Your task to perform on an android device: set the stopwatch Image 0: 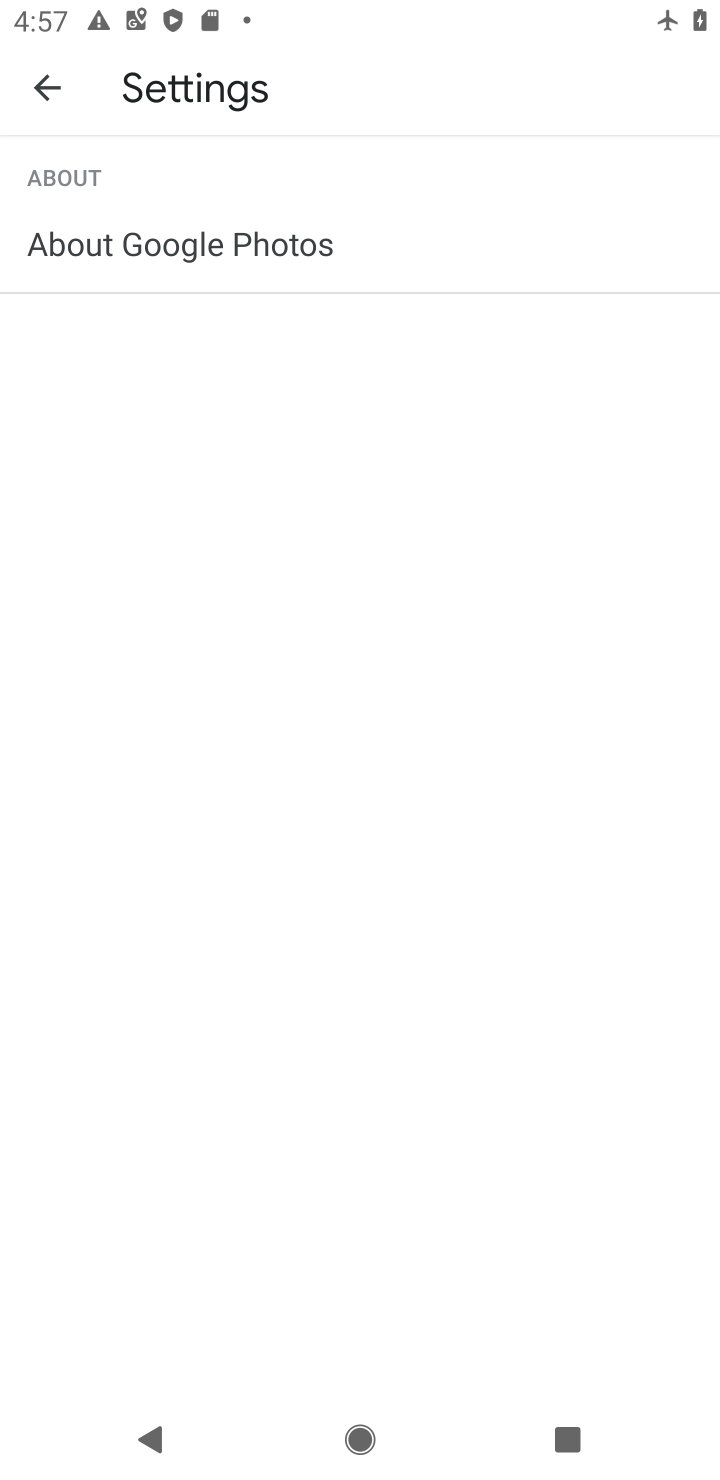
Step 0: press home button
Your task to perform on an android device: set the stopwatch Image 1: 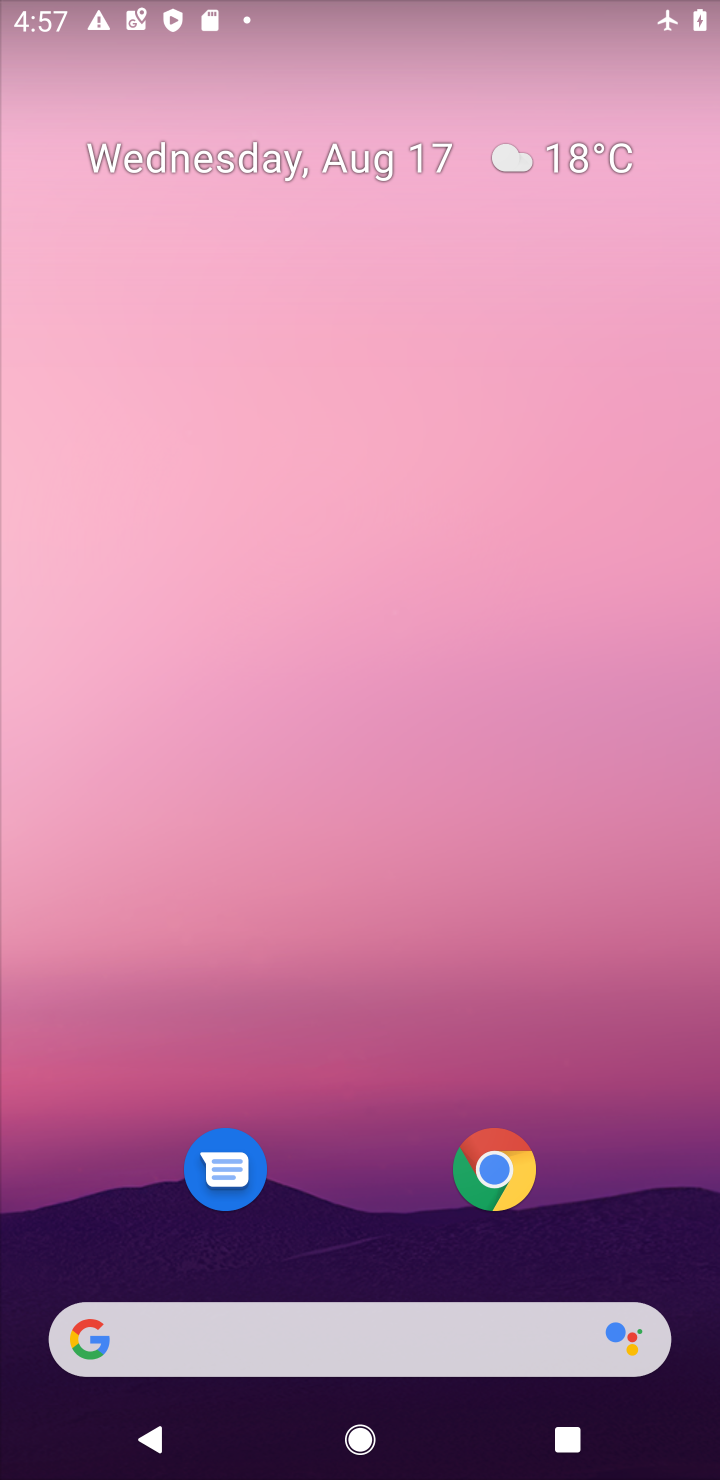
Step 1: drag from (454, 672) to (631, 5)
Your task to perform on an android device: set the stopwatch Image 2: 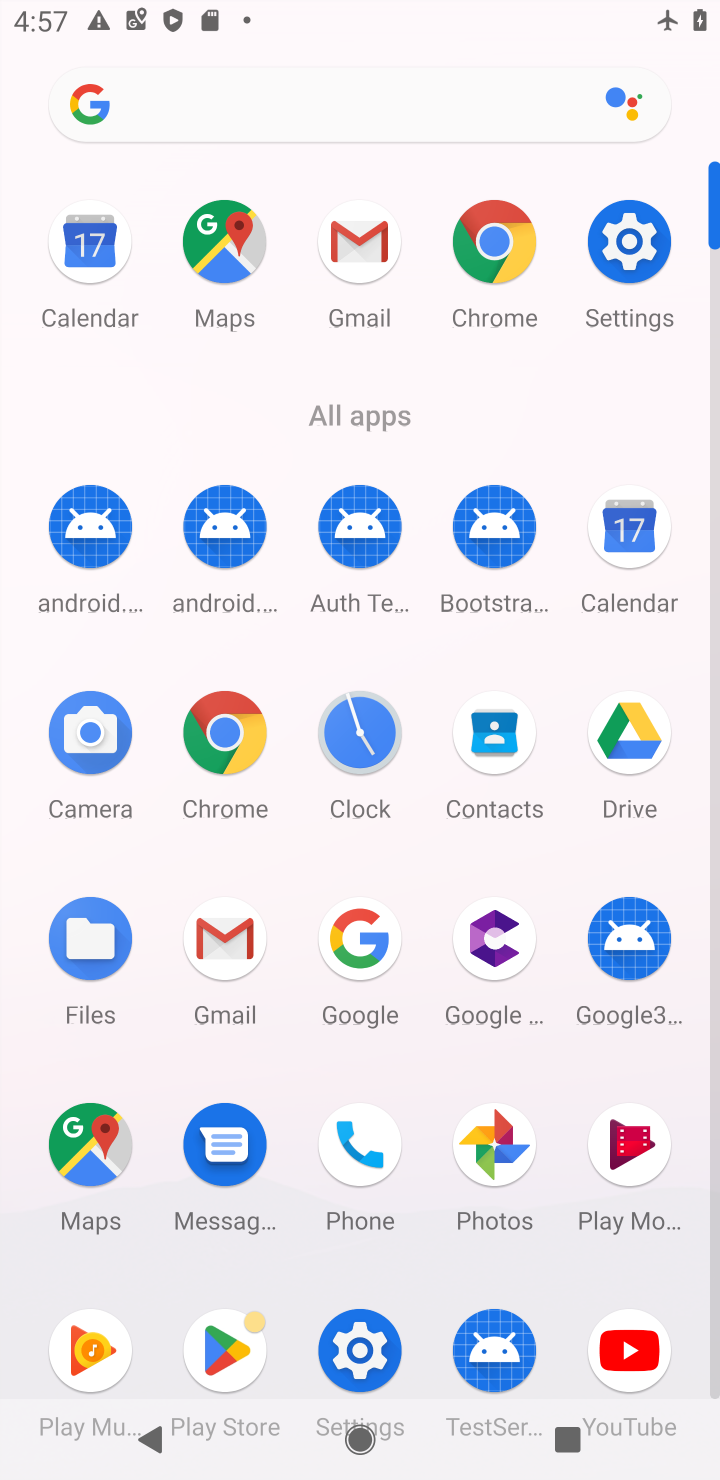
Step 2: click (362, 722)
Your task to perform on an android device: set the stopwatch Image 3: 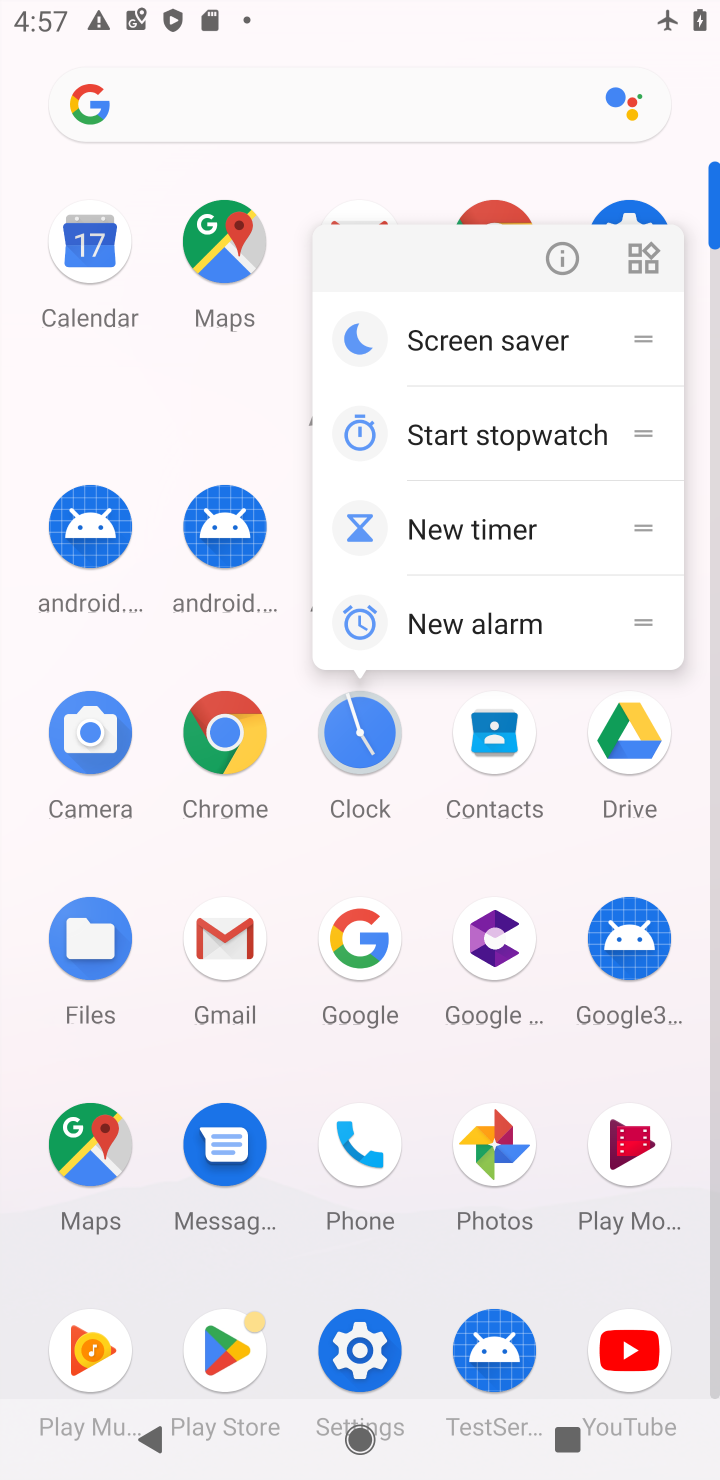
Step 3: click (369, 722)
Your task to perform on an android device: set the stopwatch Image 4: 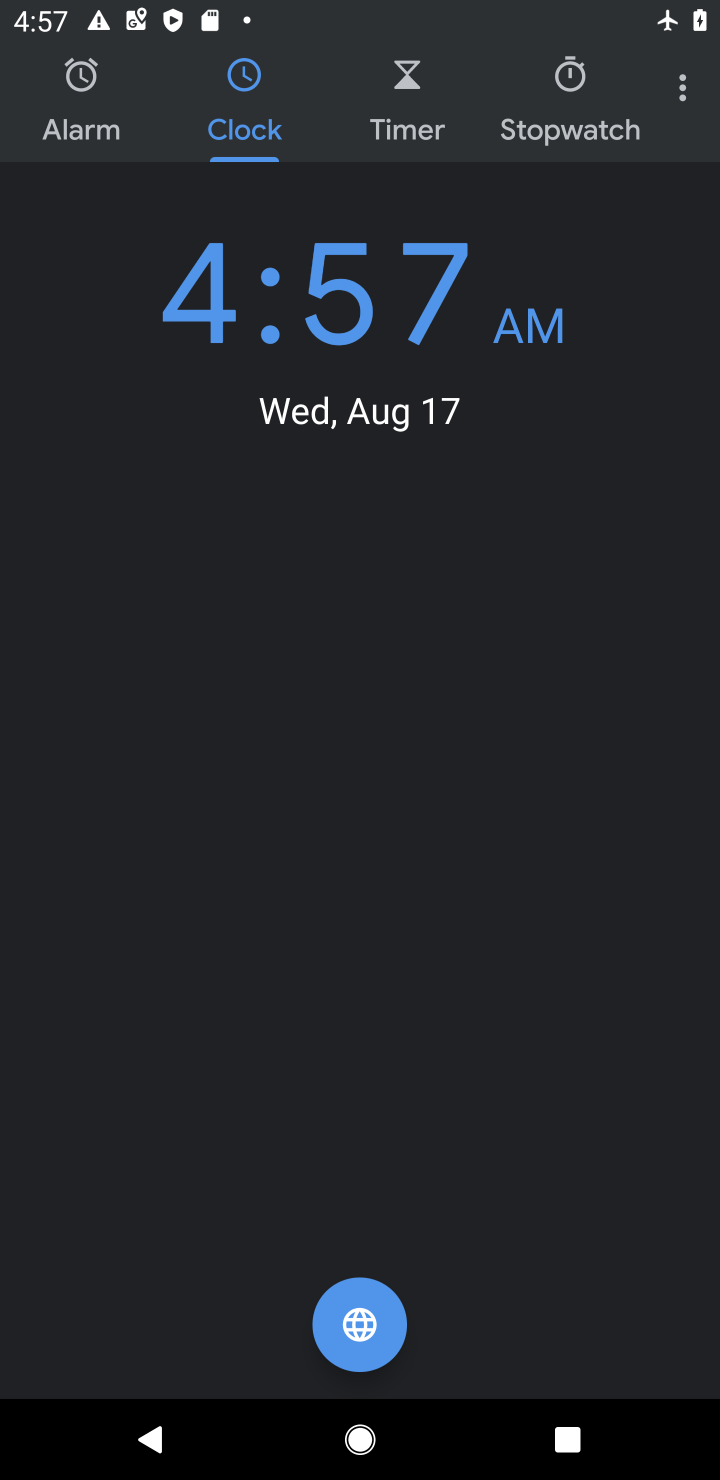
Step 4: click (581, 97)
Your task to perform on an android device: set the stopwatch Image 5: 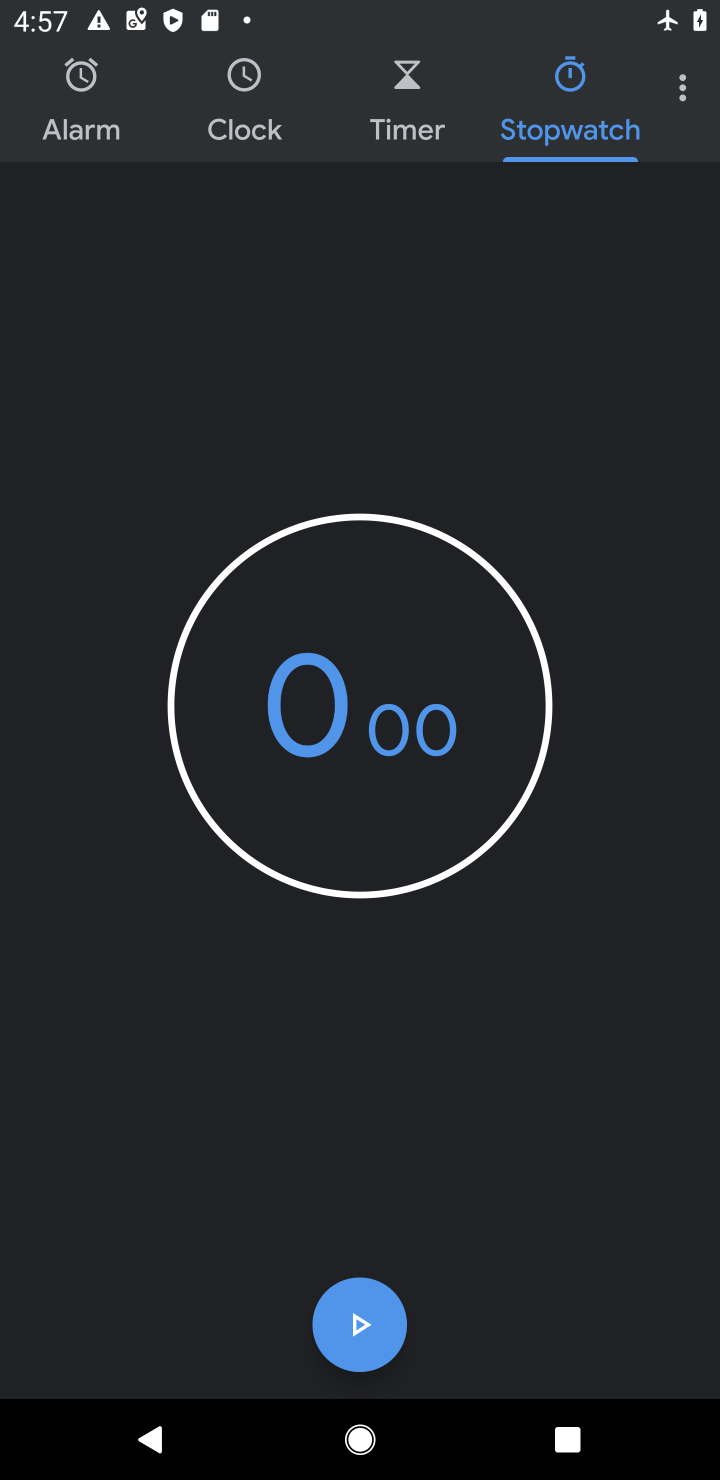
Step 5: click (353, 1323)
Your task to perform on an android device: set the stopwatch Image 6: 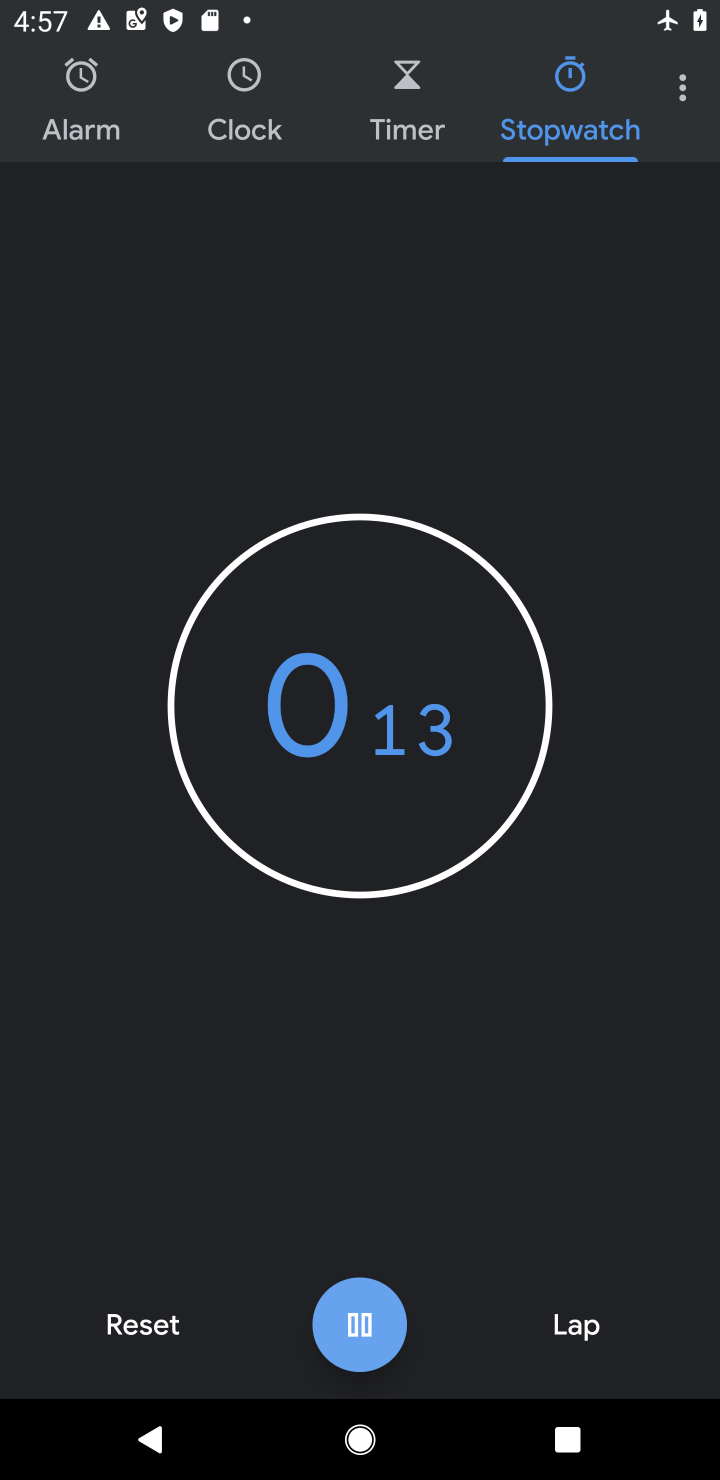
Step 6: task complete